Your task to perform on an android device: clear history in the chrome app Image 0: 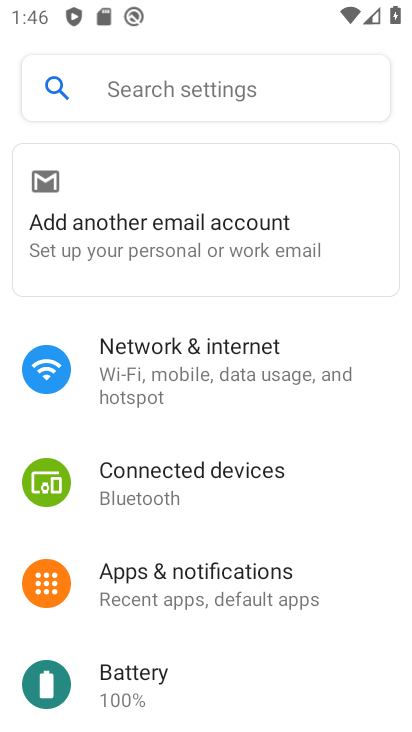
Step 0: press home button
Your task to perform on an android device: clear history in the chrome app Image 1: 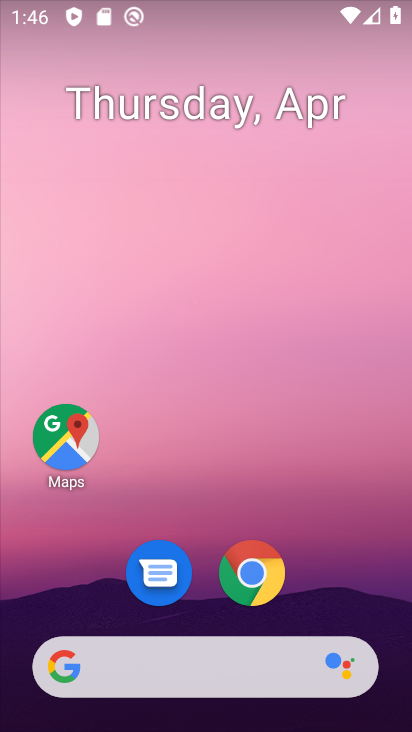
Step 1: drag from (374, 589) to (303, 24)
Your task to perform on an android device: clear history in the chrome app Image 2: 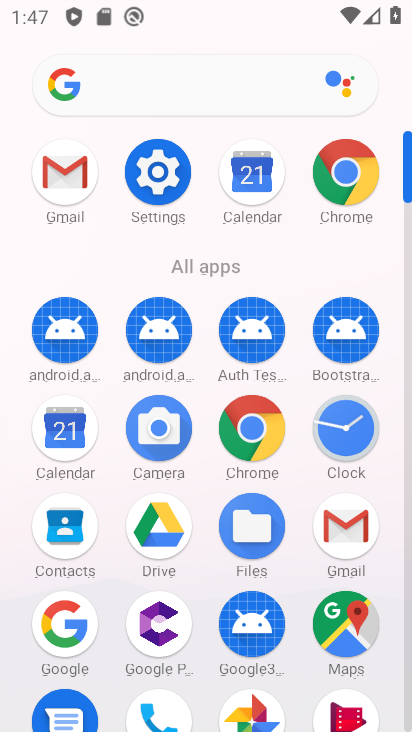
Step 2: click (337, 167)
Your task to perform on an android device: clear history in the chrome app Image 3: 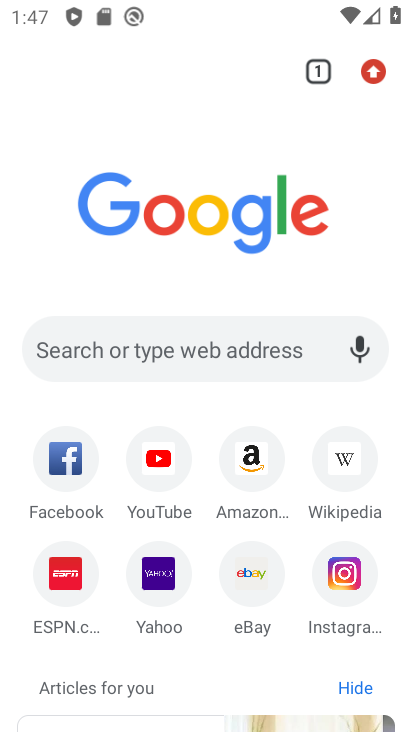
Step 3: click (373, 70)
Your task to perform on an android device: clear history in the chrome app Image 4: 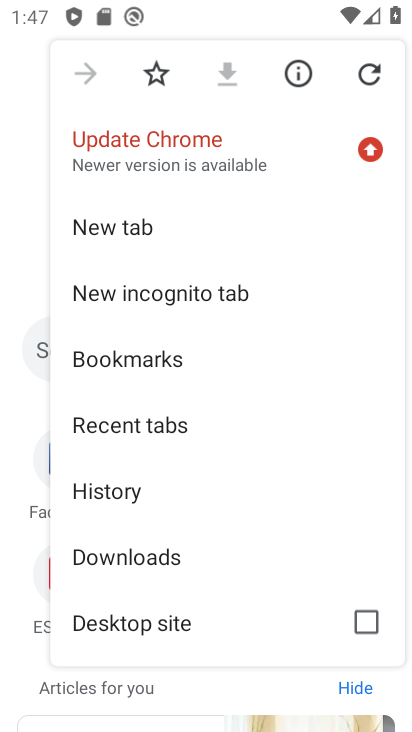
Step 4: click (114, 498)
Your task to perform on an android device: clear history in the chrome app Image 5: 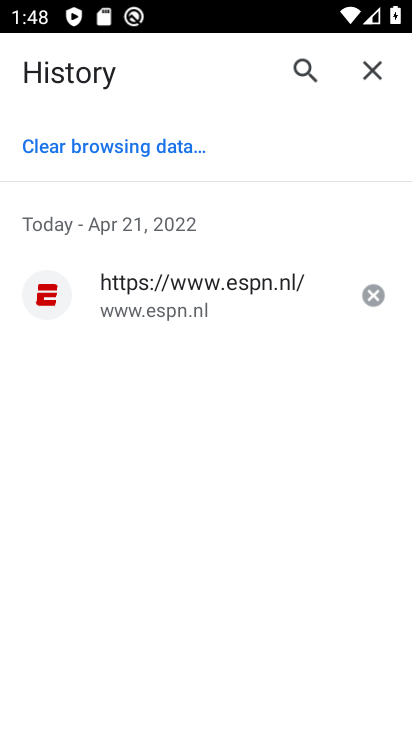
Step 5: click (186, 154)
Your task to perform on an android device: clear history in the chrome app Image 6: 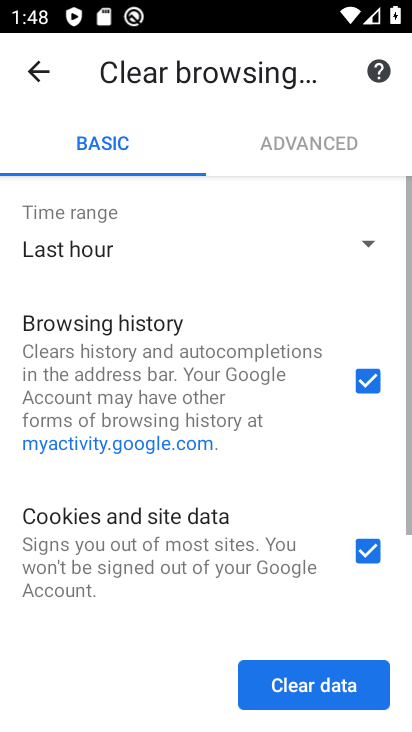
Step 6: click (267, 690)
Your task to perform on an android device: clear history in the chrome app Image 7: 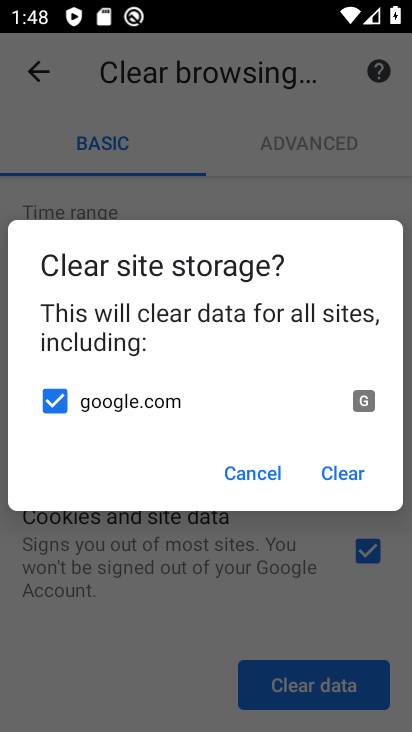
Step 7: click (339, 473)
Your task to perform on an android device: clear history in the chrome app Image 8: 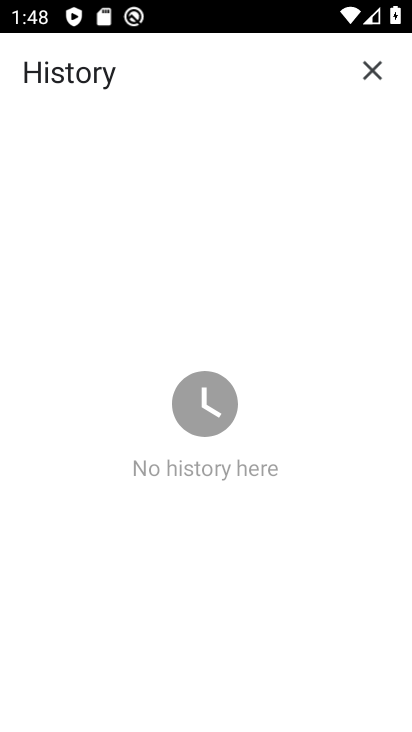
Step 8: task complete